Your task to perform on an android device: Open Amazon Image 0: 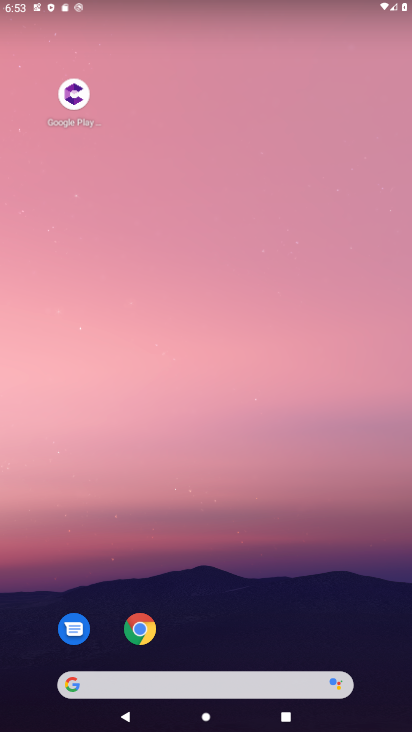
Step 0: press home button
Your task to perform on an android device: Open Amazon Image 1: 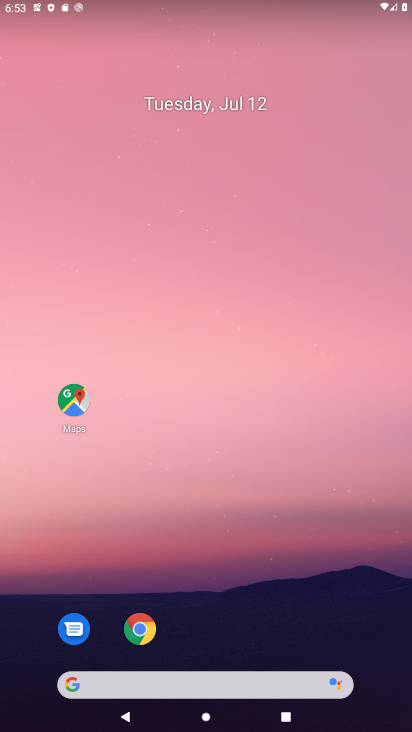
Step 1: click (151, 639)
Your task to perform on an android device: Open Amazon Image 2: 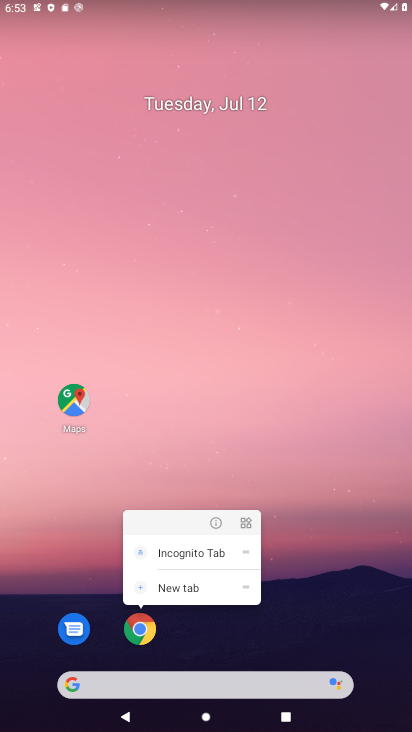
Step 2: click (151, 622)
Your task to perform on an android device: Open Amazon Image 3: 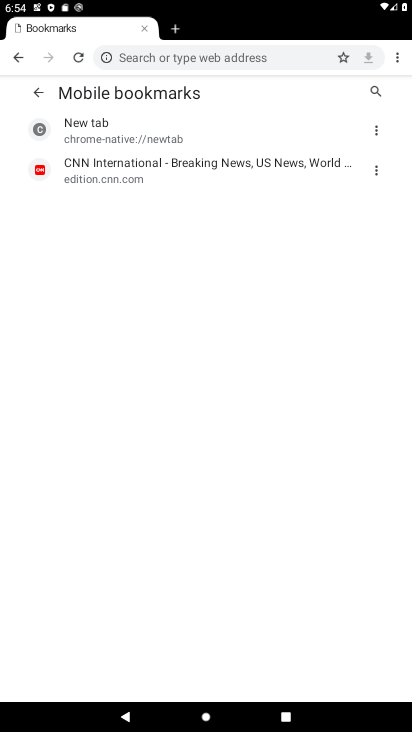
Step 3: click (400, 60)
Your task to perform on an android device: Open Amazon Image 4: 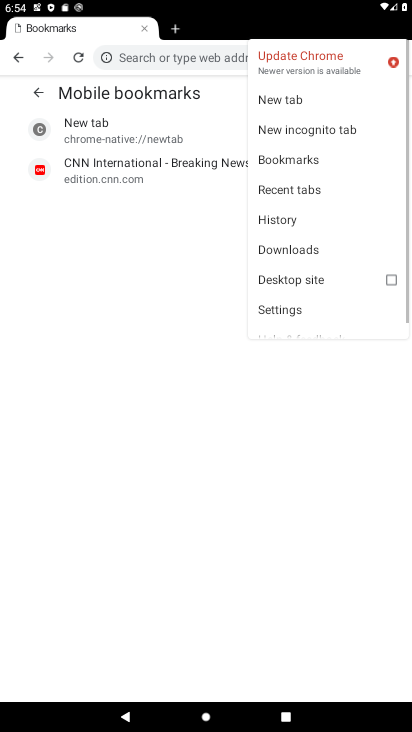
Step 4: click (291, 105)
Your task to perform on an android device: Open Amazon Image 5: 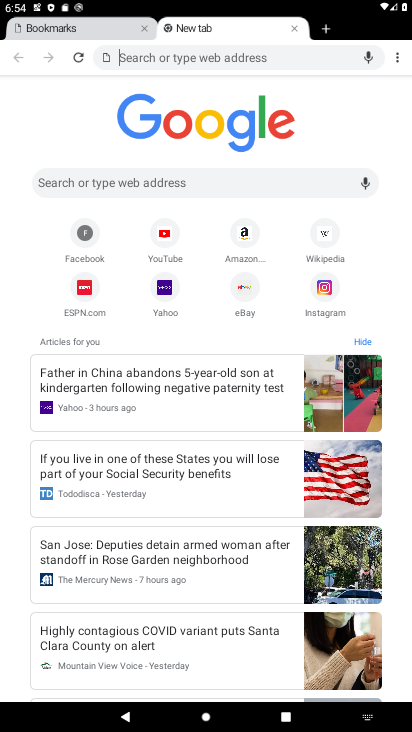
Step 5: click (239, 238)
Your task to perform on an android device: Open Amazon Image 6: 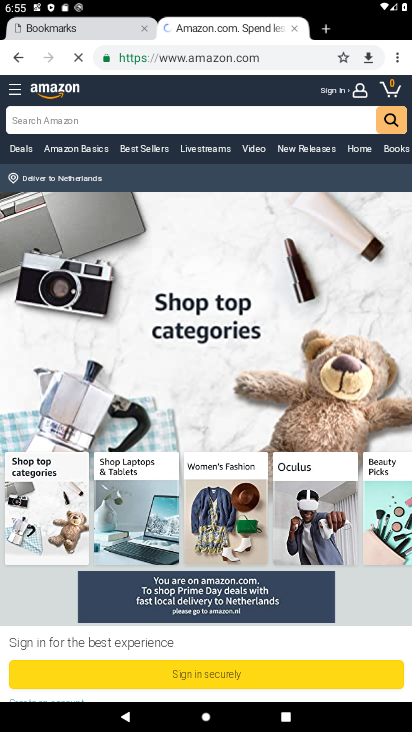
Step 6: task complete